Your task to perform on an android device: change your default location settings in chrome Image 0: 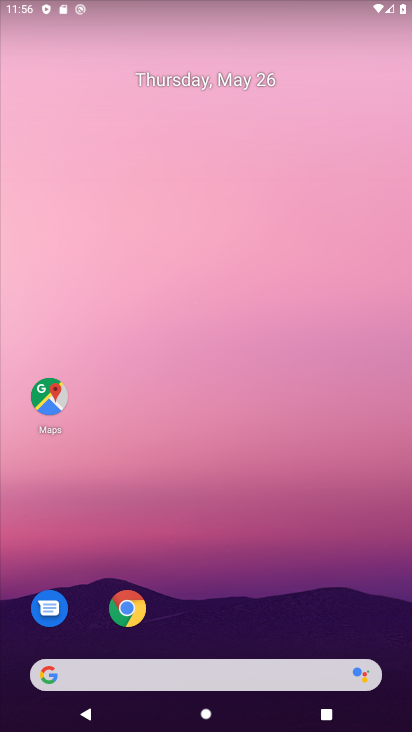
Step 0: press home button
Your task to perform on an android device: change your default location settings in chrome Image 1: 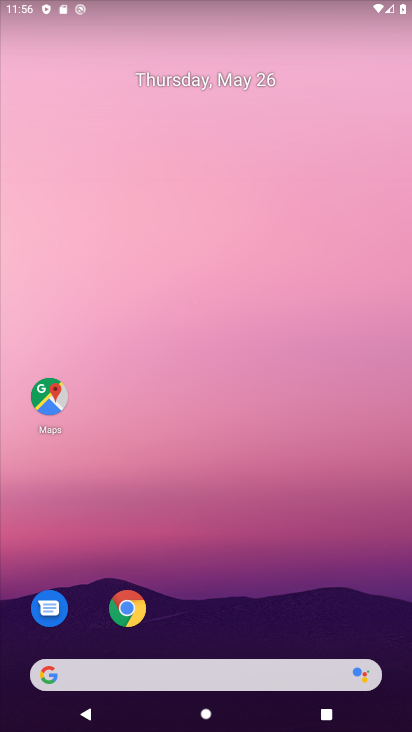
Step 1: click (131, 613)
Your task to perform on an android device: change your default location settings in chrome Image 2: 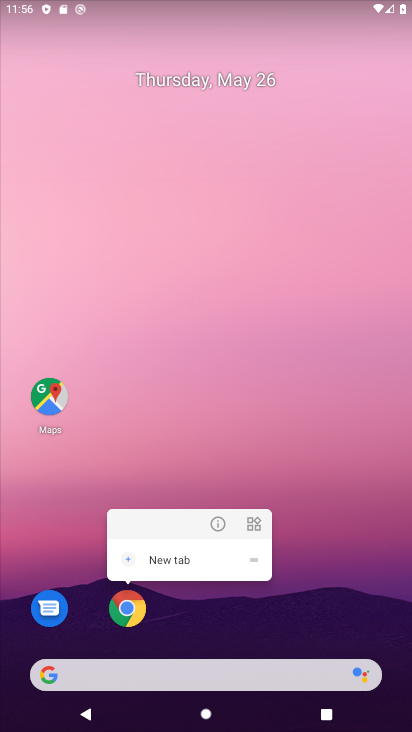
Step 2: click (125, 606)
Your task to perform on an android device: change your default location settings in chrome Image 3: 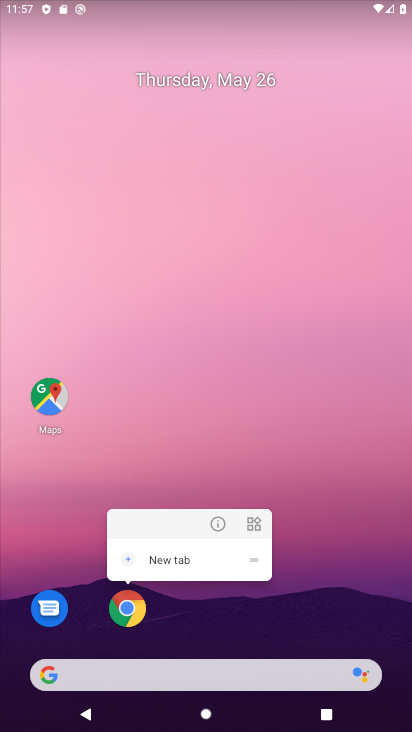
Step 3: click (122, 619)
Your task to perform on an android device: change your default location settings in chrome Image 4: 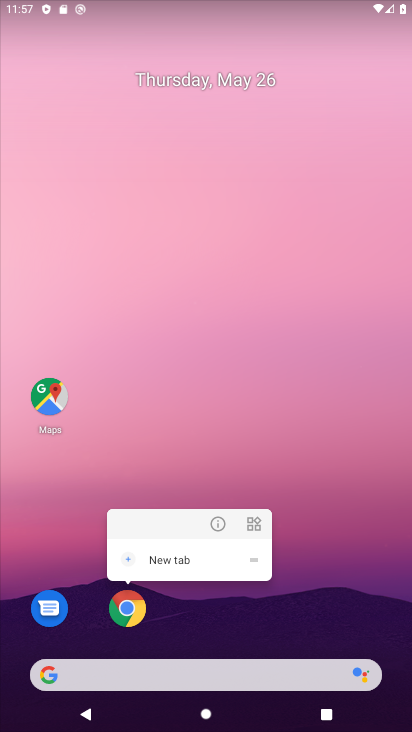
Step 4: click (122, 619)
Your task to perform on an android device: change your default location settings in chrome Image 5: 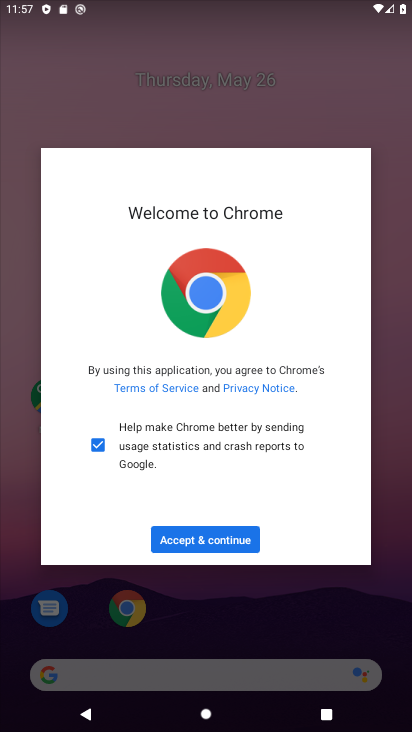
Step 5: click (199, 537)
Your task to perform on an android device: change your default location settings in chrome Image 6: 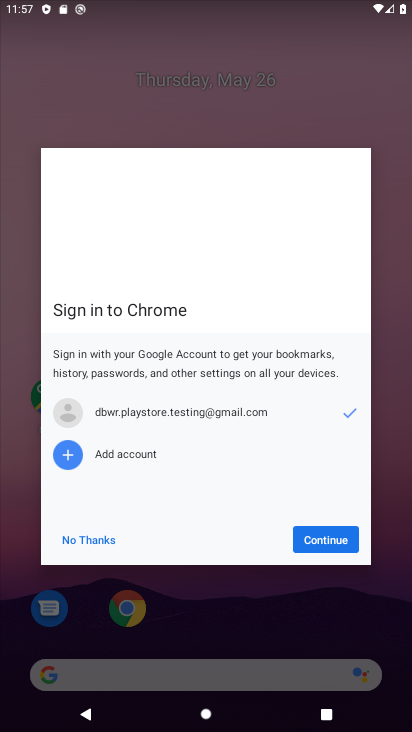
Step 6: click (321, 541)
Your task to perform on an android device: change your default location settings in chrome Image 7: 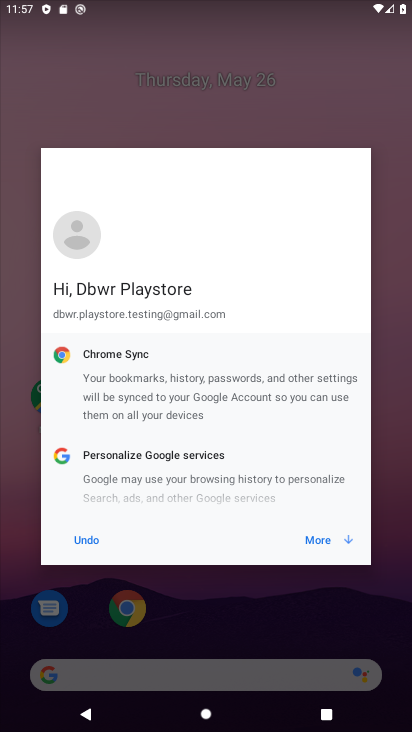
Step 7: click (321, 541)
Your task to perform on an android device: change your default location settings in chrome Image 8: 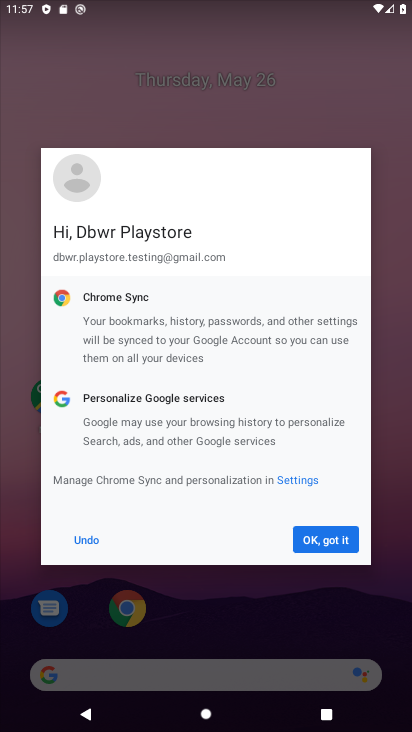
Step 8: click (319, 540)
Your task to perform on an android device: change your default location settings in chrome Image 9: 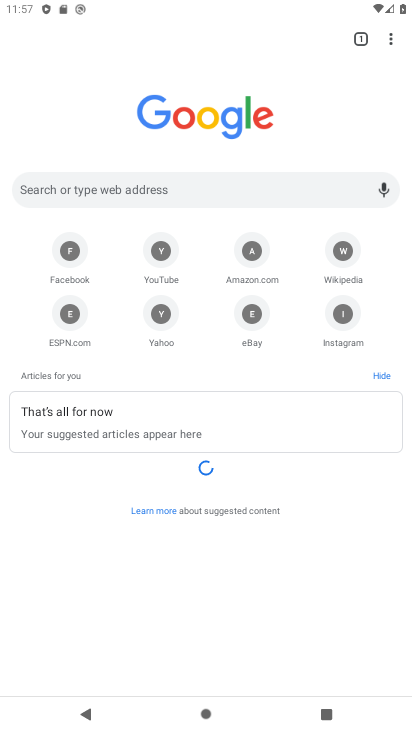
Step 9: drag from (391, 39) to (307, 328)
Your task to perform on an android device: change your default location settings in chrome Image 10: 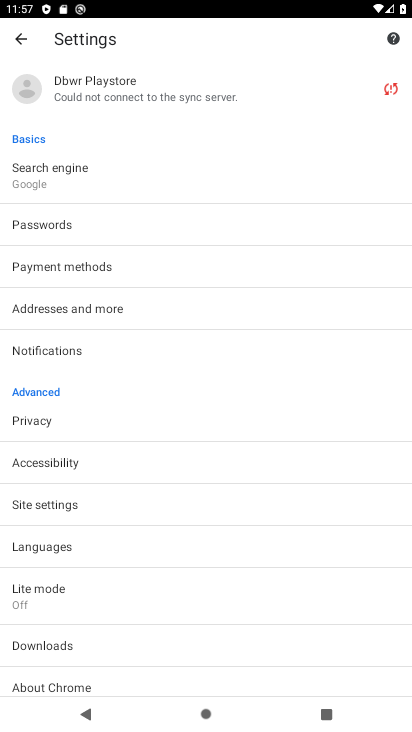
Step 10: click (67, 500)
Your task to perform on an android device: change your default location settings in chrome Image 11: 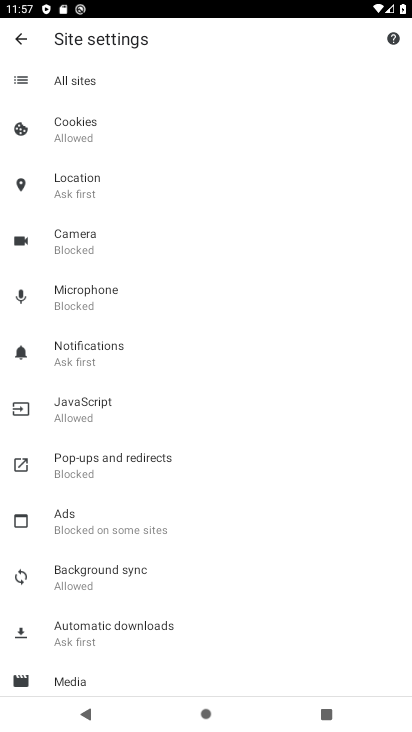
Step 11: click (88, 180)
Your task to perform on an android device: change your default location settings in chrome Image 12: 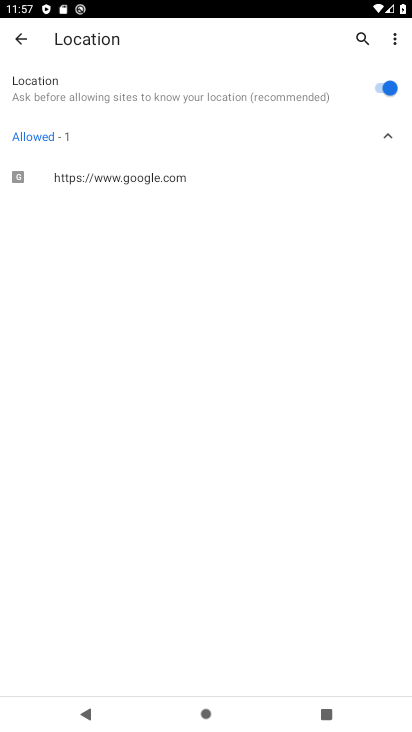
Step 12: click (376, 85)
Your task to perform on an android device: change your default location settings in chrome Image 13: 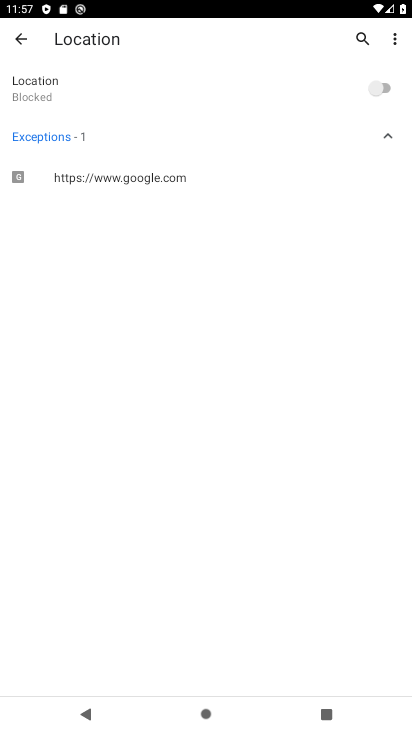
Step 13: task complete